Your task to perform on an android device: Do I have any events tomorrow? Image 0: 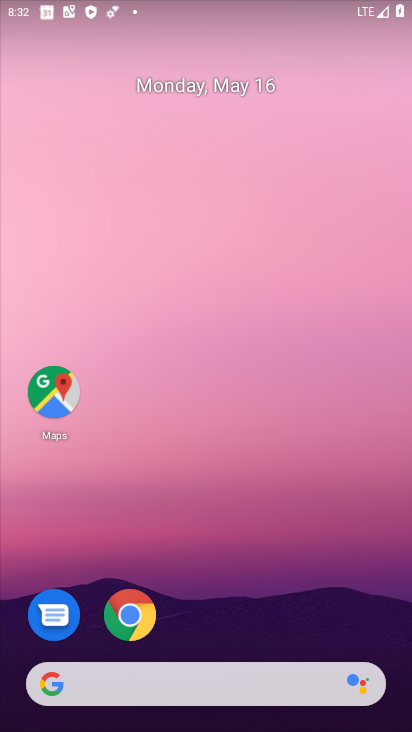
Step 0: drag from (234, 647) to (260, 325)
Your task to perform on an android device: Do I have any events tomorrow? Image 1: 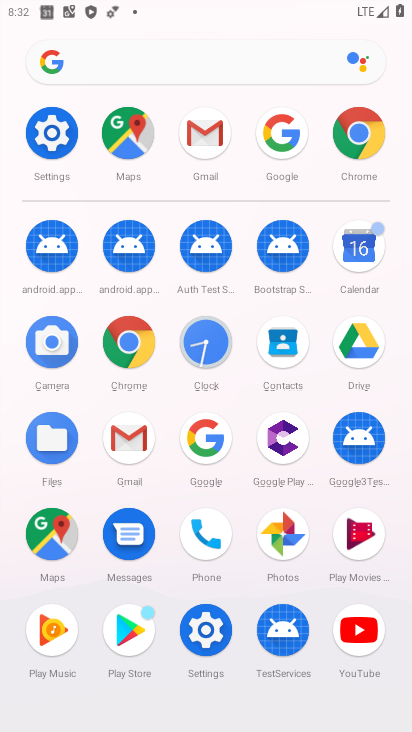
Step 1: click (377, 249)
Your task to perform on an android device: Do I have any events tomorrow? Image 2: 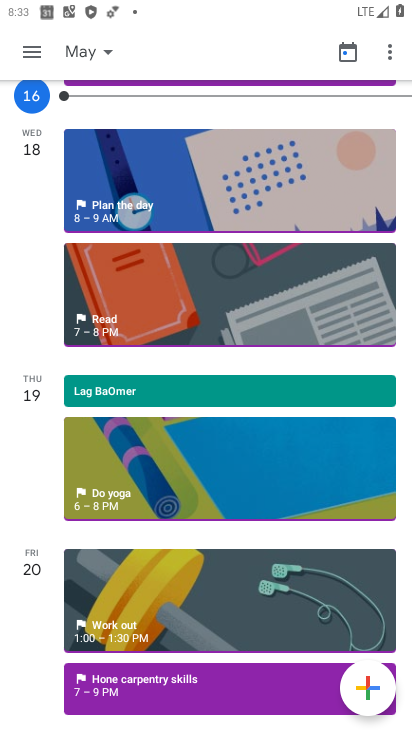
Step 2: click (33, 157)
Your task to perform on an android device: Do I have any events tomorrow? Image 3: 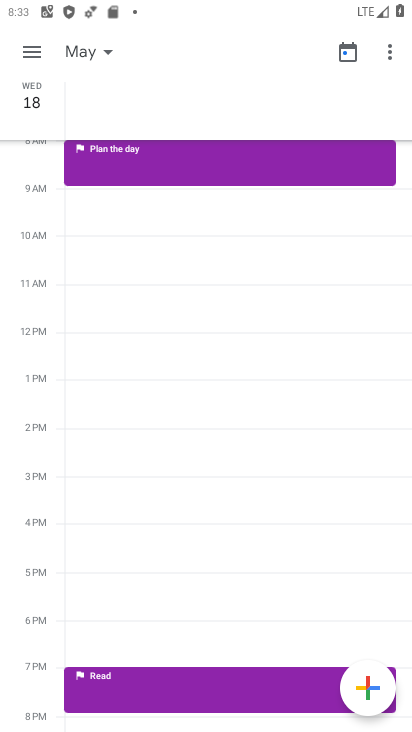
Step 3: task complete